Your task to perform on an android device: turn off translation in the chrome app Image 0: 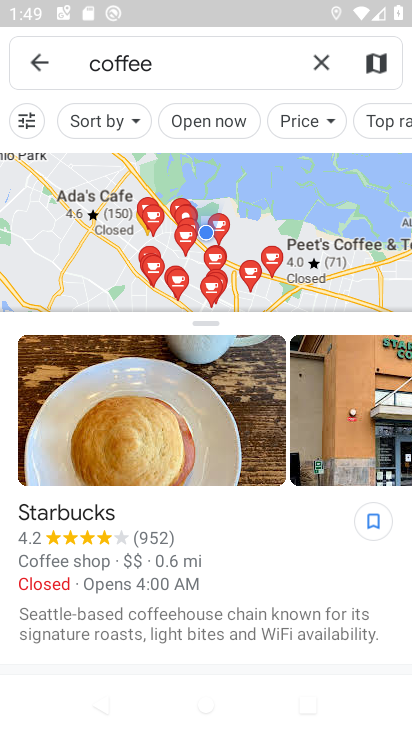
Step 0: press home button
Your task to perform on an android device: turn off translation in the chrome app Image 1: 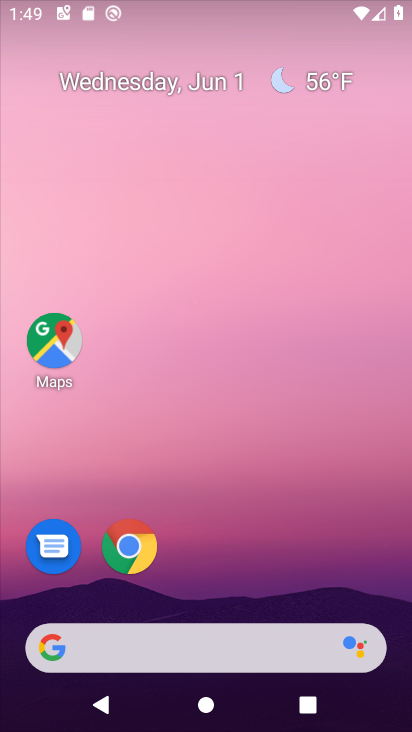
Step 1: click (133, 536)
Your task to perform on an android device: turn off translation in the chrome app Image 2: 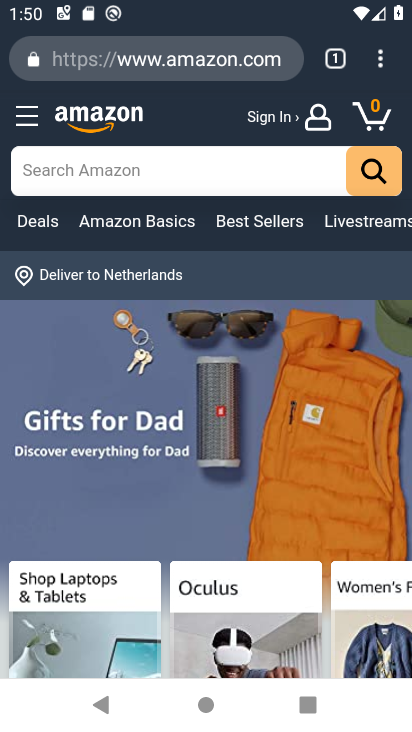
Step 2: click (380, 63)
Your task to perform on an android device: turn off translation in the chrome app Image 3: 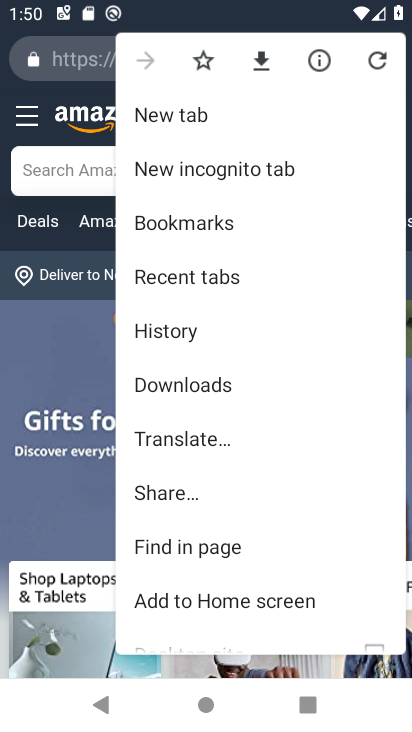
Step 3: drag from (182, 555) to (228, 272)
Your task to perform on an android device: turn off translation in the chrome app Image 4: 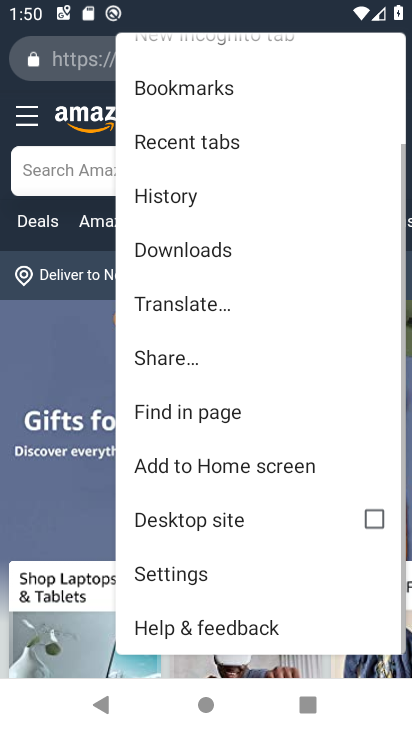
Step 4: click (166, 579)
Your task to perform on an android device: turn off translation in the chrome app Image 5: 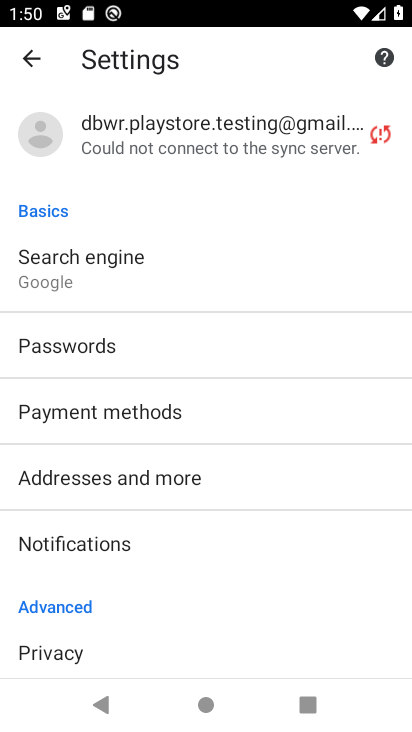
Step 5: drag from (188, 608) to (204, 307)
Your task to perform on an android device: turn off translation in the chrome app Image 6: 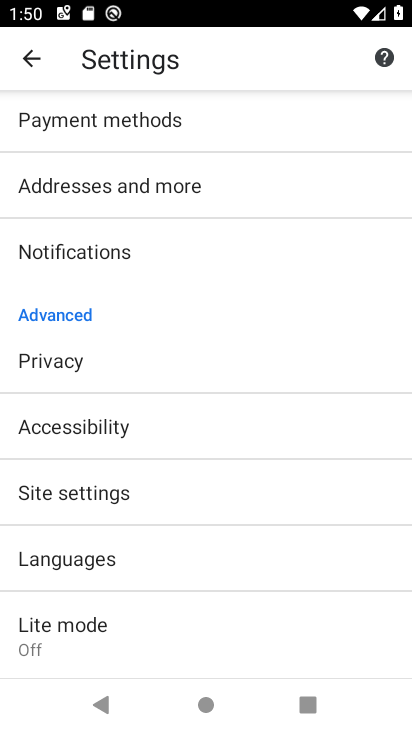
Step 6: click (73, 559)
Your task to perform on an android device: turn off translation in the chrome app Image 7: 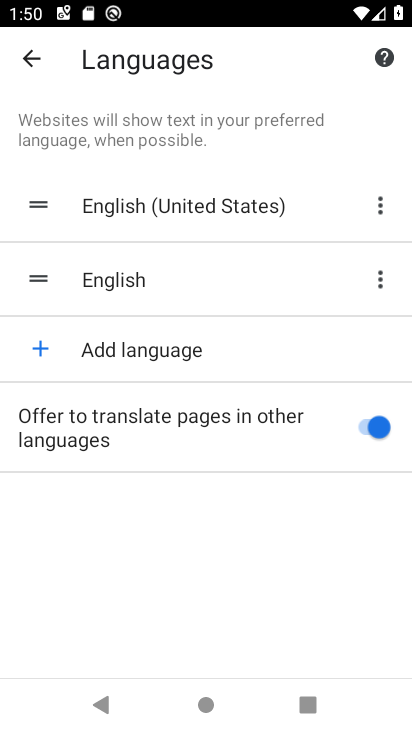
Step 7: click (370, 437)
Your task to perform on an android device: turn off translation in the chrome app Image 8: 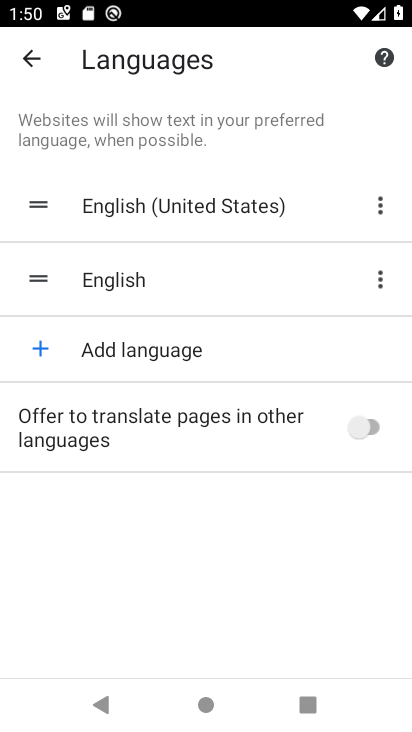
Step 8: task complete